Your task to perform on an android device: turn off translation in the chrome app Image 0: 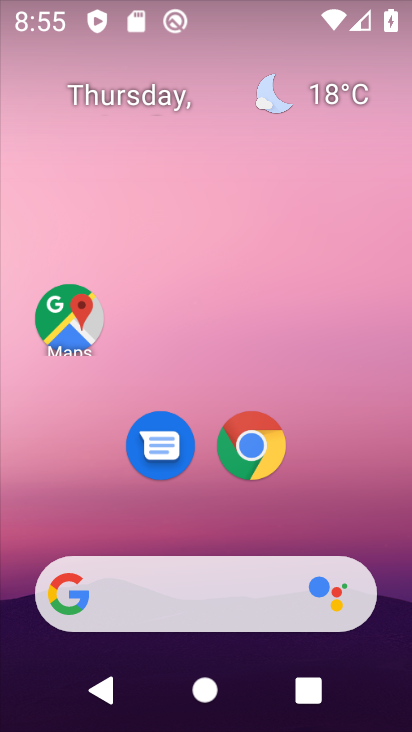
Step 0: drag from (390, 531) to (321, 257)
Your task to perform on an android device: turn off translation in the chrome app Image 1: 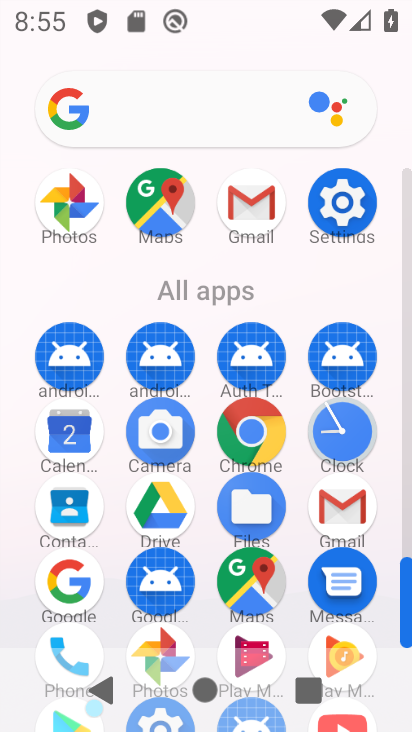
Step 1: click (257, 413)
Your task to perform on an android device: turn off translation in the chrome app Image 2: 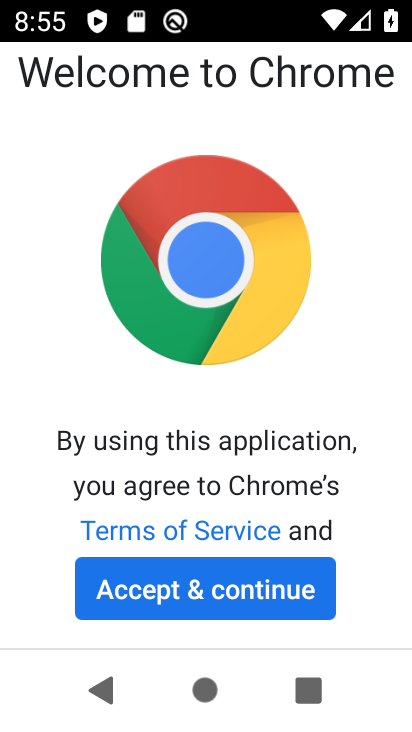
Step 2: click (297, 570)
Your task to perform on an android device: turn off translation in the chrome app Image 3: 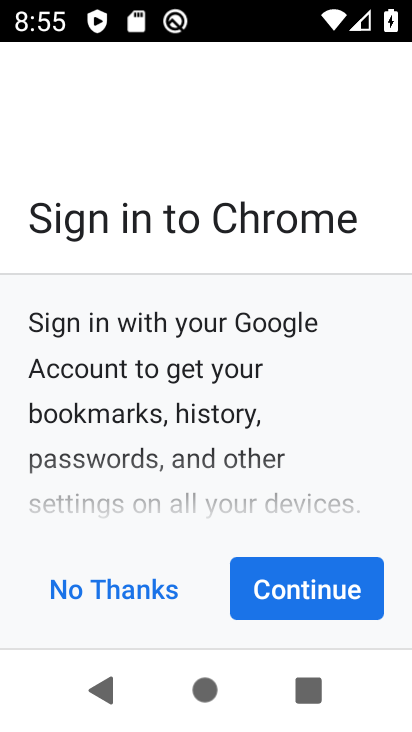
Step 3: click (311, 585)
Your task to perform on an android device: turn off translation in the chrome app Image 4: 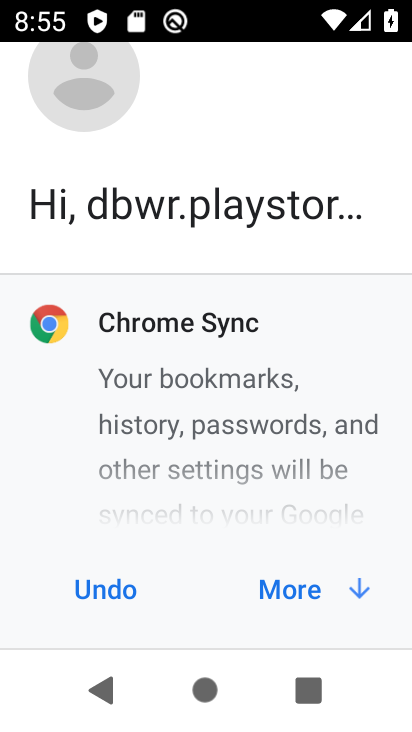
Step 4: click (311, 585)
Your task to perform on an android device: turn off translation in the chrome app Image 5: 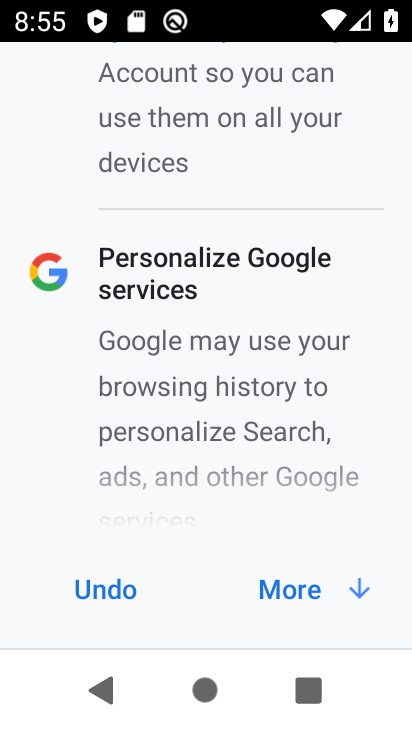
Step 5: click (311, 585)
Your task to perform on an android device: turn off translation in the chrome app Image 6: 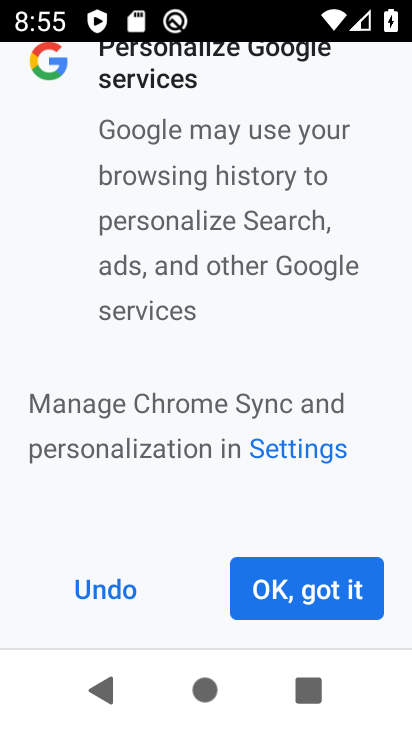
Step 6: click (311, 585)
Your task to perform on an android device: turn off translation in the chrome app Image 7: 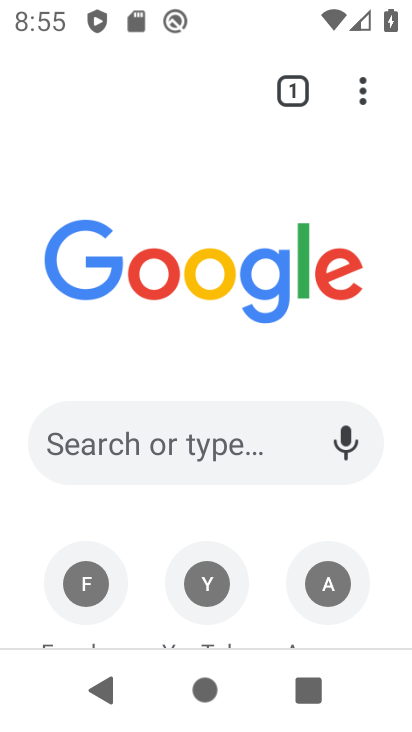
Step 7: click (362, 102)
Your task to perform on an android device: turn off translation in the chrome app Image 8: 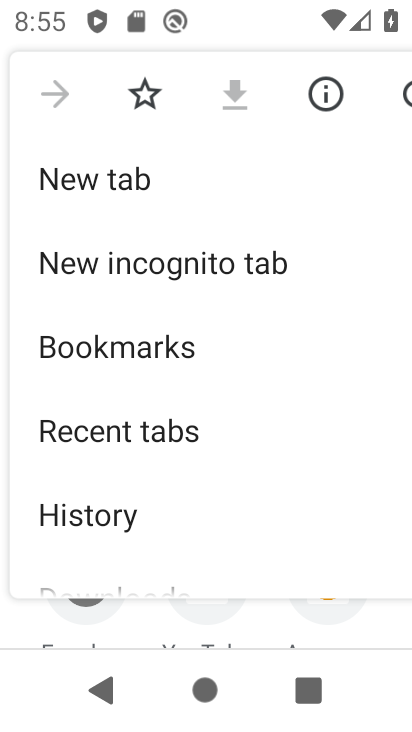
Step 8: drag from (208, 514) to (187, 34)
Your task to perform on an android device: turn off translation in the chrome app Image 9: 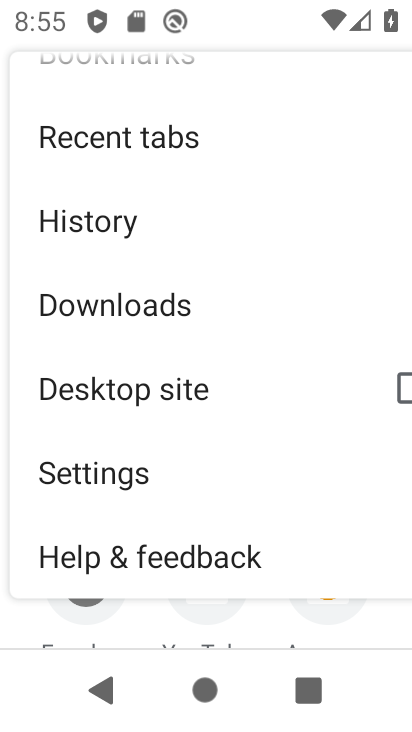
Step 9: click (195, 465)
Your task to perform on an android device: turn off translation in the chrome app Image 10: 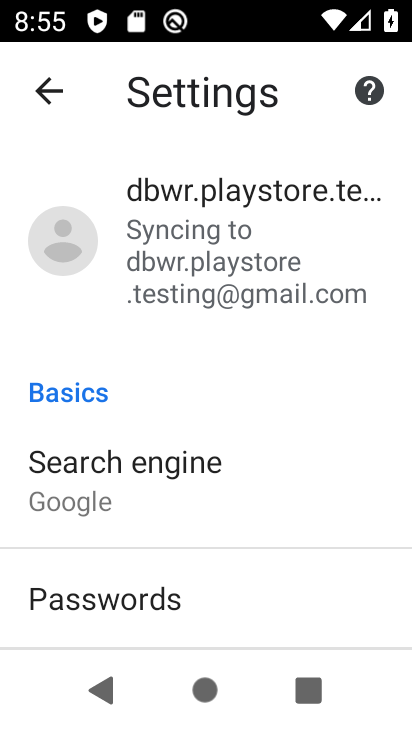
Step 10: drag from (236, 603) to (212, 134)
Your task to perform on an android device: turn off translation in the chrome app Image 11: 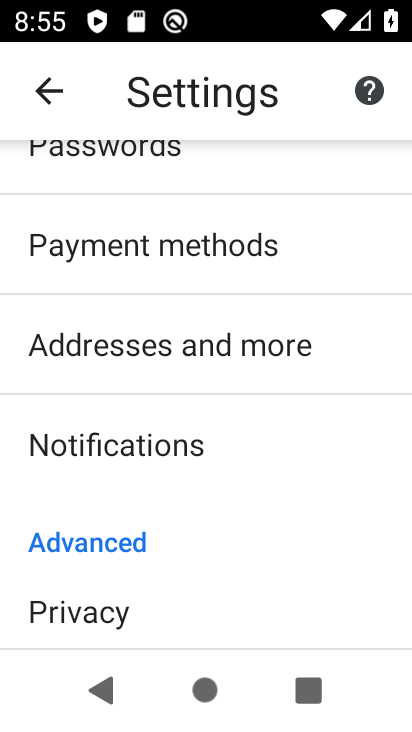
Step 11: drag from (209, 522) to (171, 205)
Your task to perform on an android device: turn off translation in the chrome app Image 12: 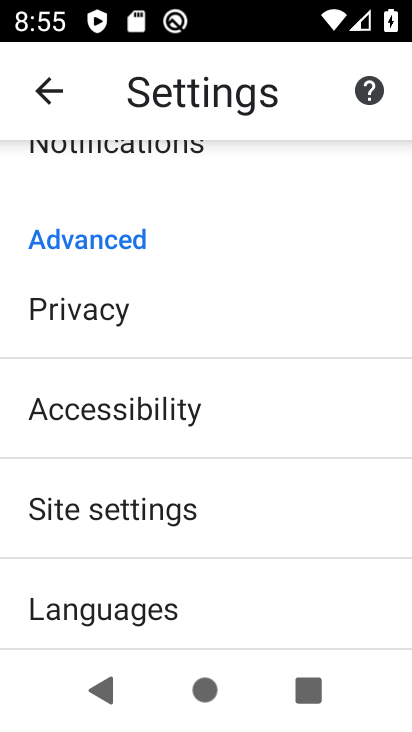
Step 12: click (276, 596)
Your task to perform on an android device: turn off translation in the chrome app Image 13: 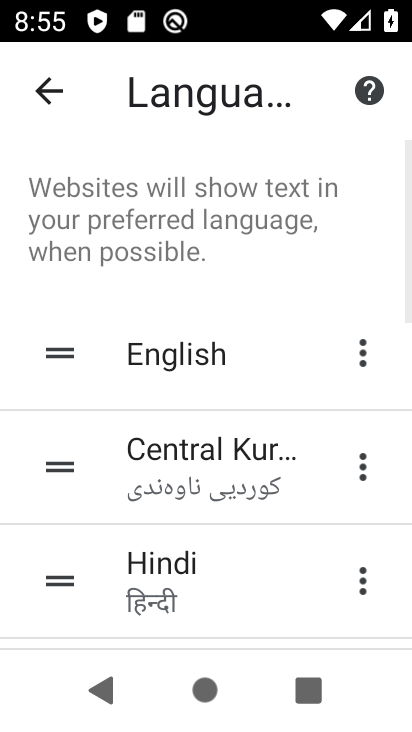
Step 13: task complete